Your task to perform on an android device: Open CNN.com Image 0: 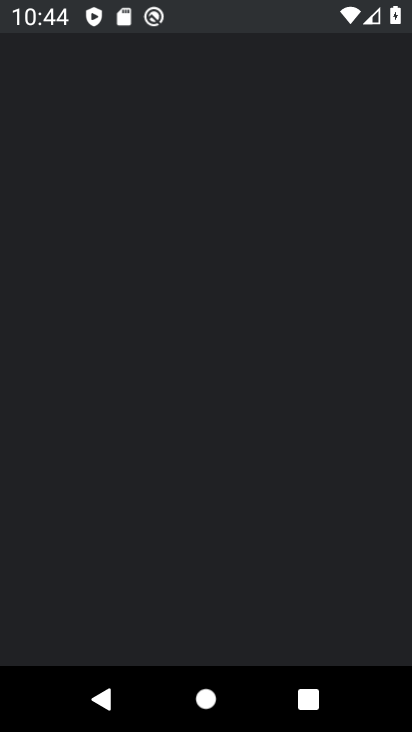
Step 0: drag from (341, 530) to (360, 484)
Your task to perform on an android device: Open CNN.com Image 1: 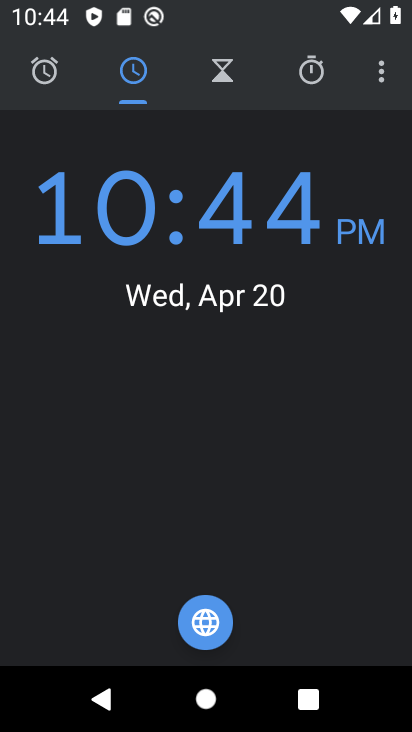
Step 1: press home button
Your task to perform on an android device: Open CNN.com Image 2: 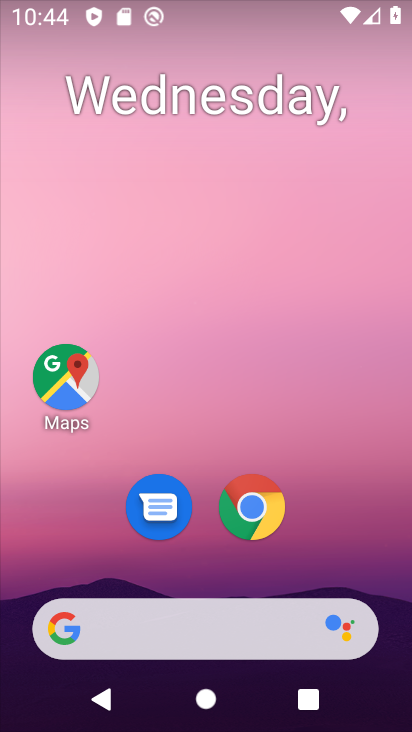
Step 2: drag from (330, 539) to (356, 47)
Your task to perform on an android device: Open CNN.com Image 3: 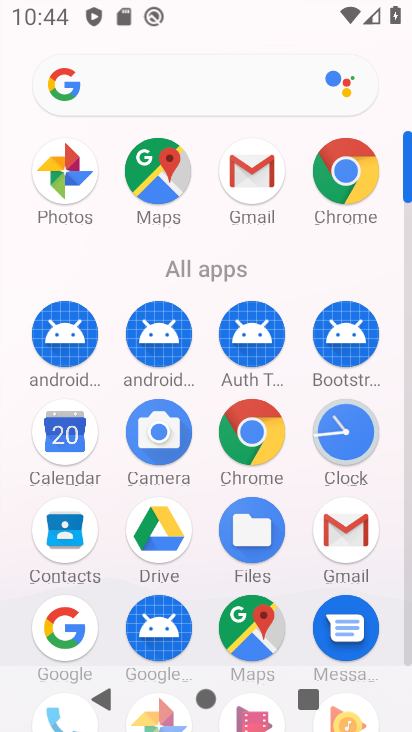
Step 3: click (258, 434)
Your task to perform on an android device: Open CNN.com Image 4: 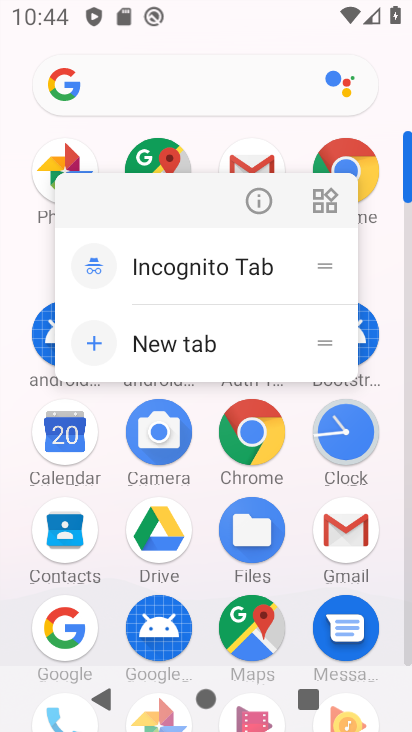
Step 4: click (253, 427)
Your task to perform on an android device: Open CNN.com Image 5: 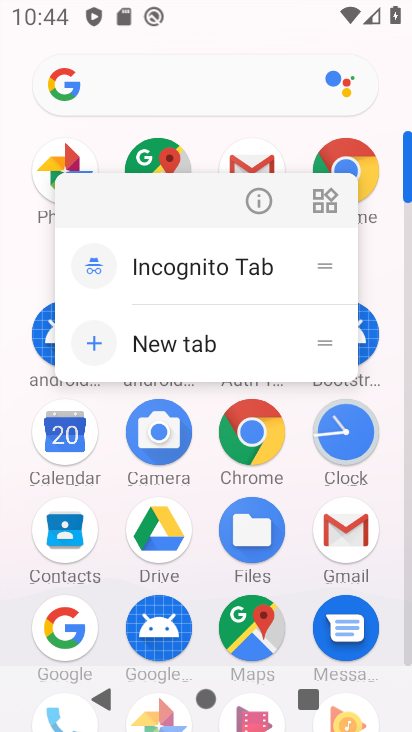
Step 5: click (253, 441)
Your task to perform on an android device: Open CNN.com Image 6: 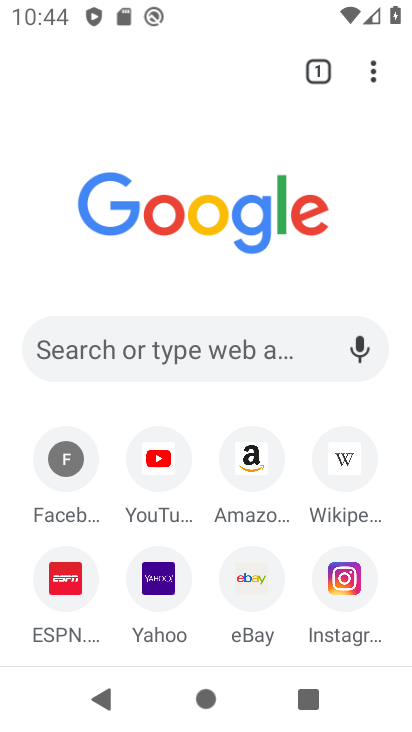
Step 6: click (196, 344)
Your task to perform on an android device: Open CNN.com Image 7: 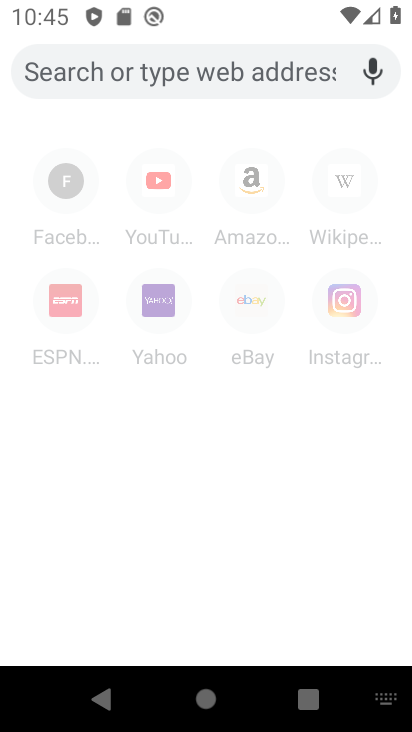
Step 7: type "cnn.com"
Your task to perform on an android device: Open CNN.com Image 8: 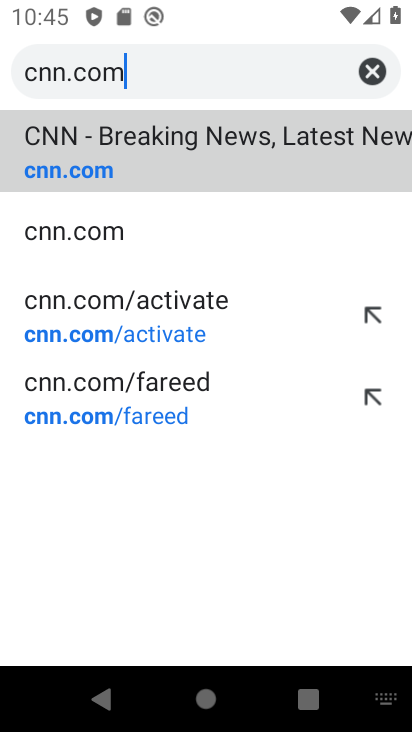
Step 8: click (110, 240)
Your task to perform on an android device: Open CNN.com Image 9: 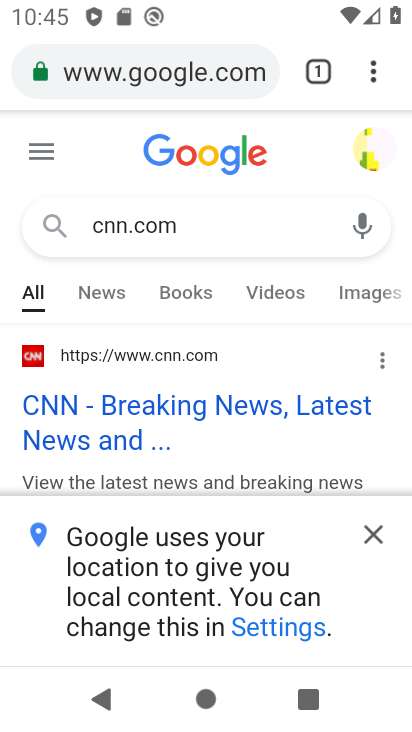
Step 9: click (236, 400)
Your task to perform on an android device: Open CNN.com Image 10: 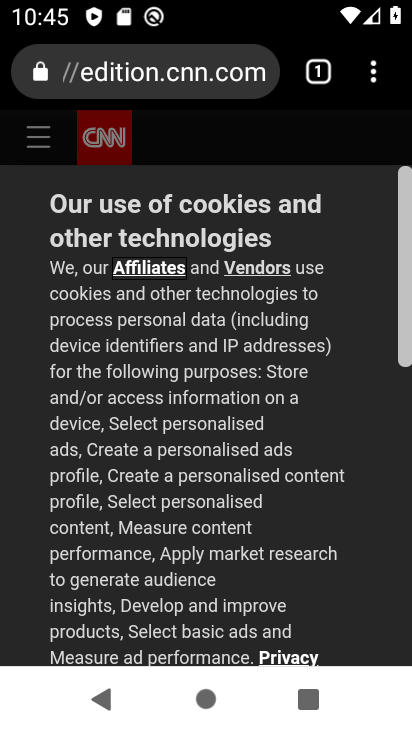
Step 10: task complete